Your task to perform on an android device: open app "Google Play Games" Image 0: 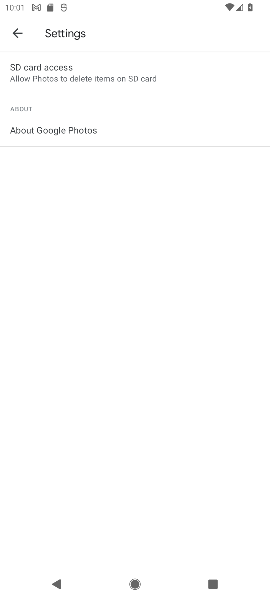
Step 0: press home button
Your task to perform on an android device: open app "Google Play Games" Image 1: 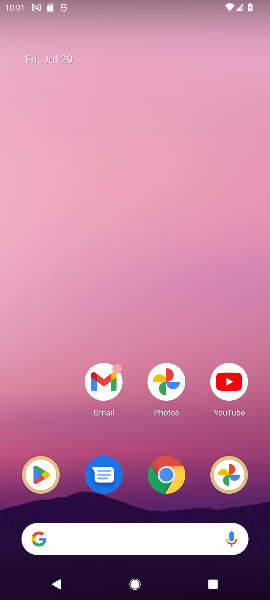
Step 1: drag from (202, 437) to (221, 25)
Your task to perform on an android device: open app "Google Play Games" Image 2: 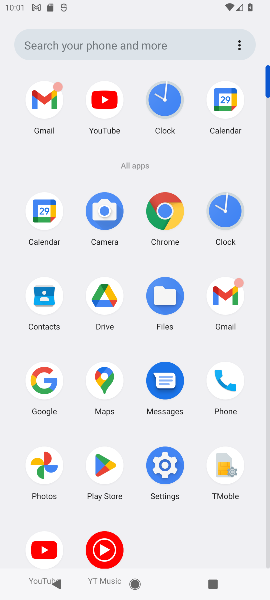
Step 2: click (105, 470)
Your task to perform on an android device: open app "Google Play Games" Image 3: 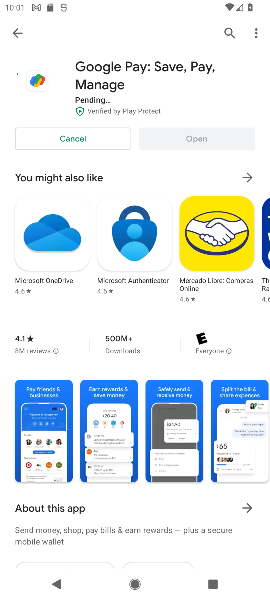
Step 3: click (227, 32)
Your task to perform on an android device: open app "Google Play Games" Image 4: 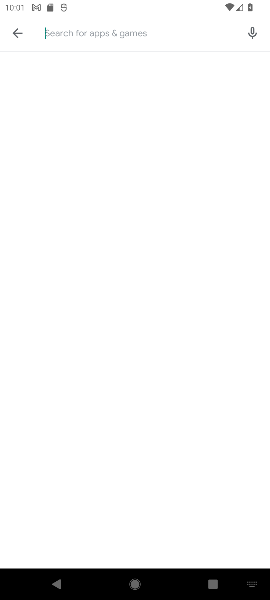
Step 4: type "Google Play Games"
Your task to perform on an android device: open app "Google Play Games" Image 5: 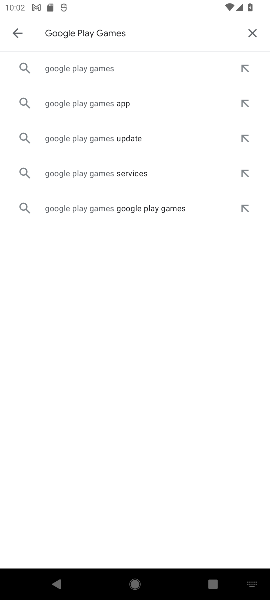
Step 5: press enter
Your task to perform on an android device: open app "Google Play Games" Image 6: 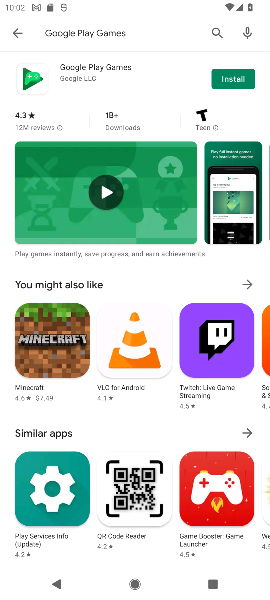
Step 6: task complete